Your task to perform on an android device: What is the recent news? Image 0: 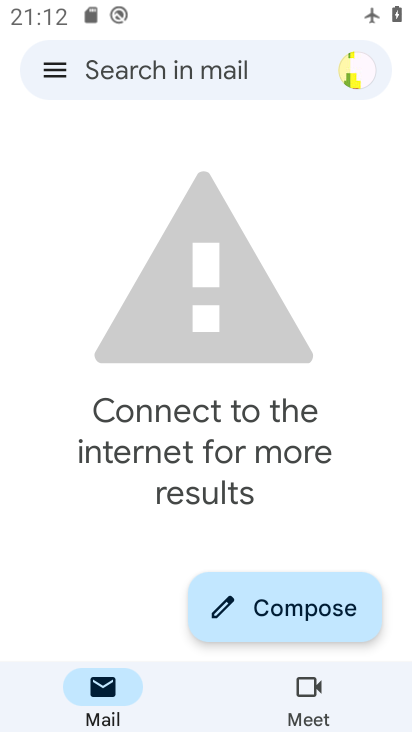
Step 0: press back button
Your task to perform on an android device: What is the recent news? Image 1: 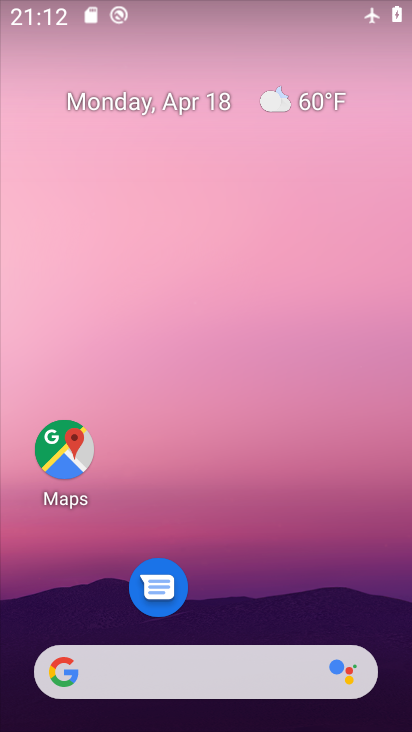
Step 1: drag from (269, 601) to (259, 181)
Your task to perform on an android device: What is the recent news? Image 2: 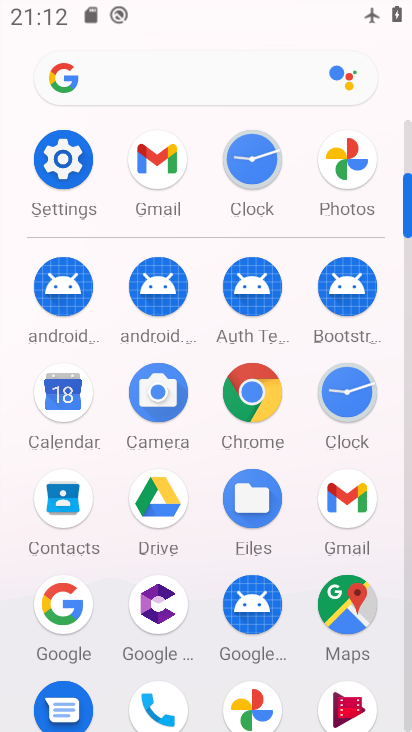
Step 2: click (254, 442)
Your task to perform on an android device: What is the recent news? Image 3: 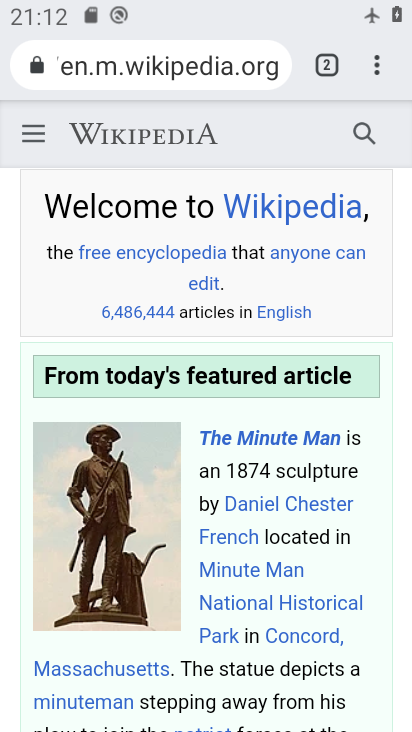
Step 3: click (342, 74)
Your task to perform on an android device: What is the recent news? Image 4: 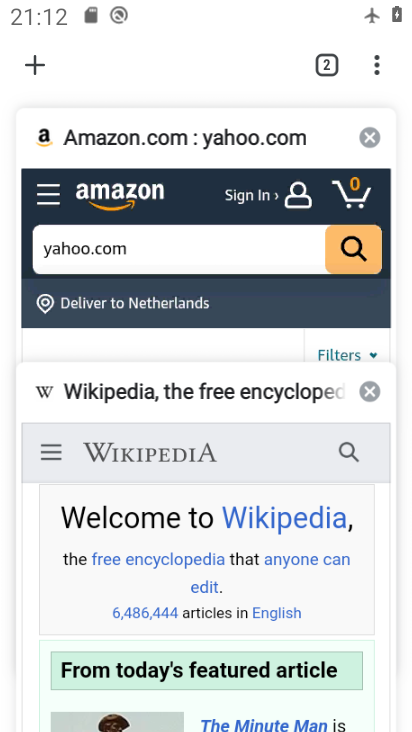
Step 4: click (379, 133)
Your task to perform on an android device: What is the recent news? Image 5: 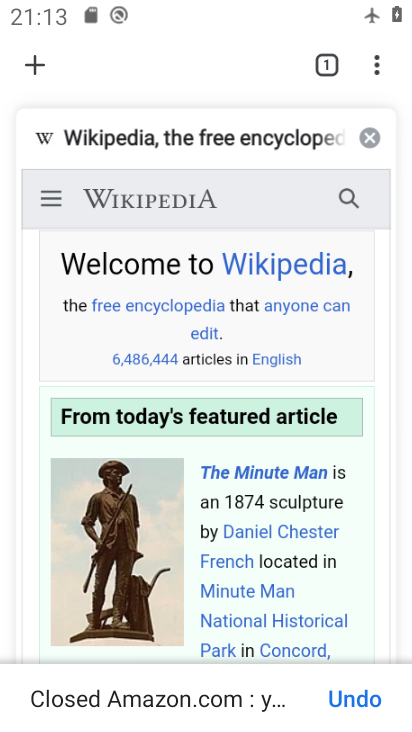
Step 5: click (379, 133)
Your task to perform on an android device: What is the recent news? Image 6: 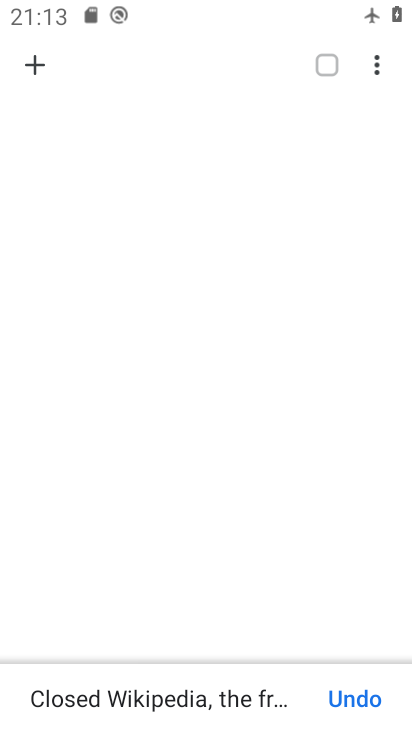
Step 6: click (46, 69)
Your task to perform on an android device: What is the recent news? Image 7: 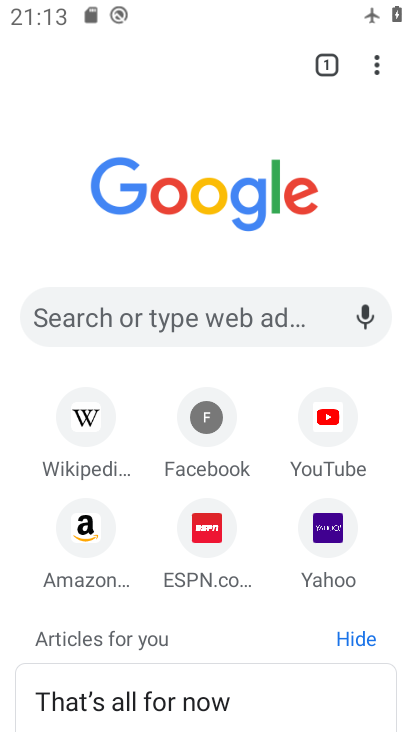
Step 7: drag from (135, 622) to (155, 208)
Your task to perform on an android device: What is the recent news? Image 8: 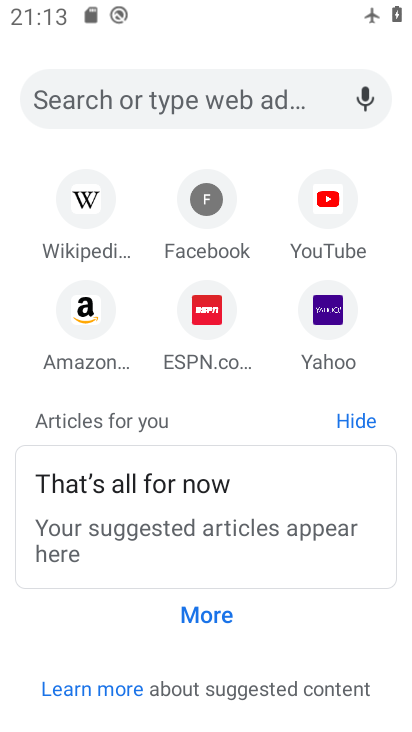
Step 8: drag from (282, 637) to (305, 259)
Your task to perform on an android device: What is the recent news? Image 9: 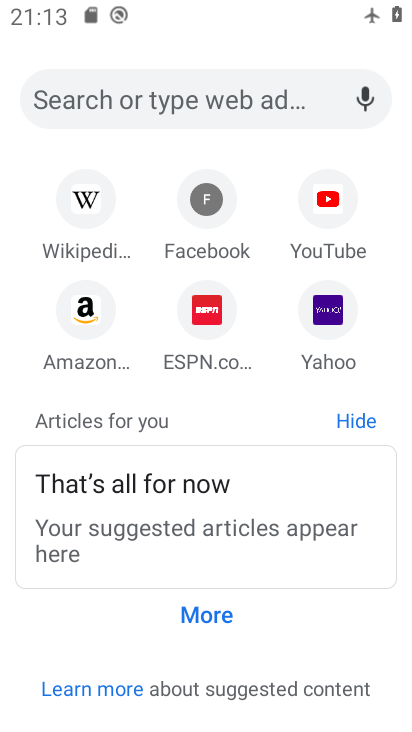
Step 9: click (209, 609)
Your task to perform on an android device: What is the recent news? Image 10: 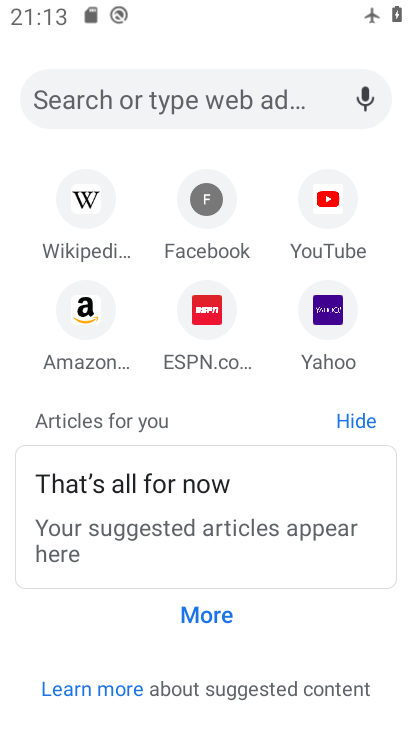
Step 10: task complete